Your task to perform on an android device: Search for the best rated mechanical keyboard on Amazon. Image 0: 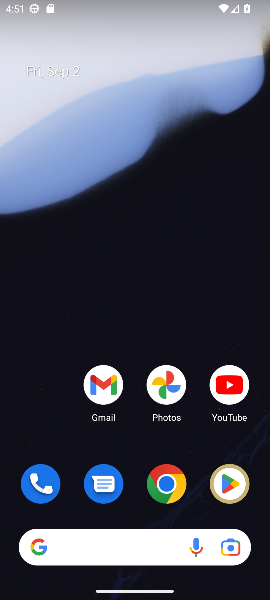
Step 0: click (171, 486)
Your task to perform on an android device: Search for the best rated mechanical keyboard on Amazon. Image 1: 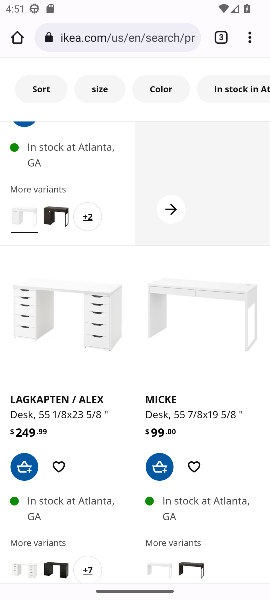
Step 1: click (158, 33)
Your task to perform on an android device: Search for the best rated mechanical keyboard on Amazon. Image 2: 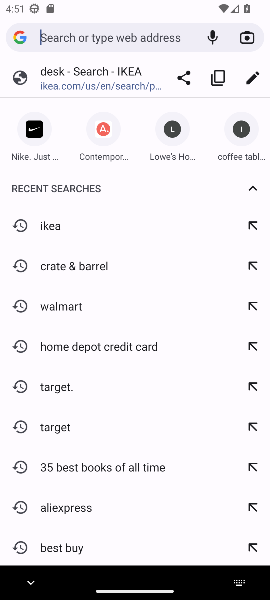
Step 2: type "Amazon"
Your task to perform on an android device: Search for the best rated mechanical keyboard on Amazon. Image 3: 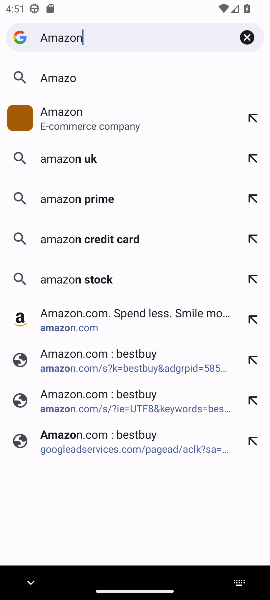
Step 3: press enter
Your task to perform on an android device: Search for the best rated mechanical keyboard on Amazon. Image 4: 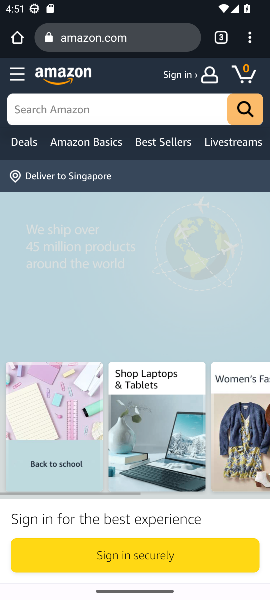
Step 4: click (32, 115)
Your task to perform on an android device: Search for the best rated mechanical keyboard on Amazon. Image 5: 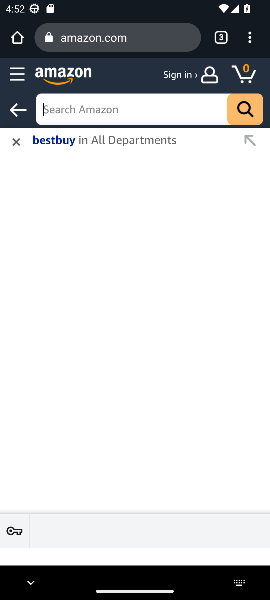
Step 5: type "mechanical keyboard "
Your task to perform on an android device: Search for the best rated mechanical keyboard on Amazon. Image 6: 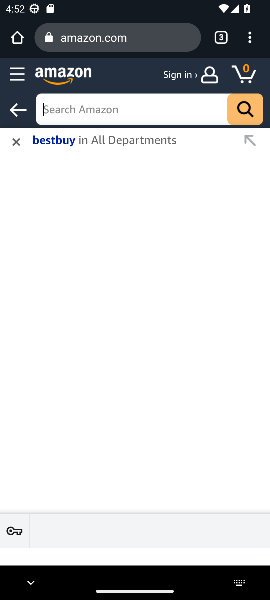
Step 6: press enter
Your task to perform on an android device: Search for the best rated mechanical keyboard on Amazon. Image 7: 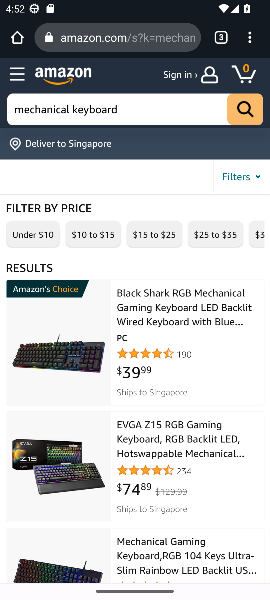
Step 7: task complete